Your task to perform on an android device: Open calendar and show me the first week of next month Image 0: 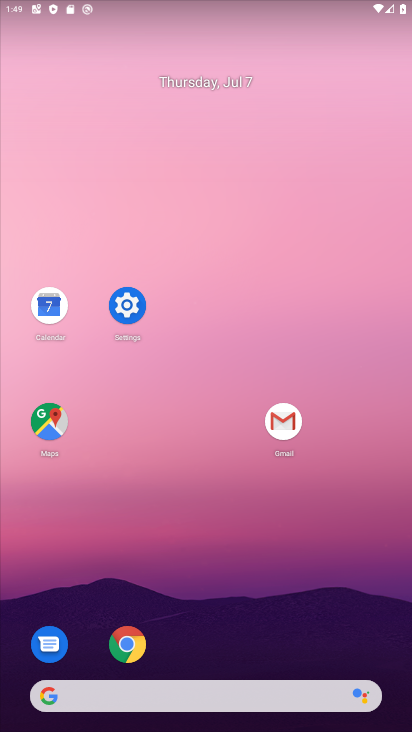
Step 0: click (57, 303)
Your task to perform on an android device: Open calendar and show me the first week of next month Image 1: 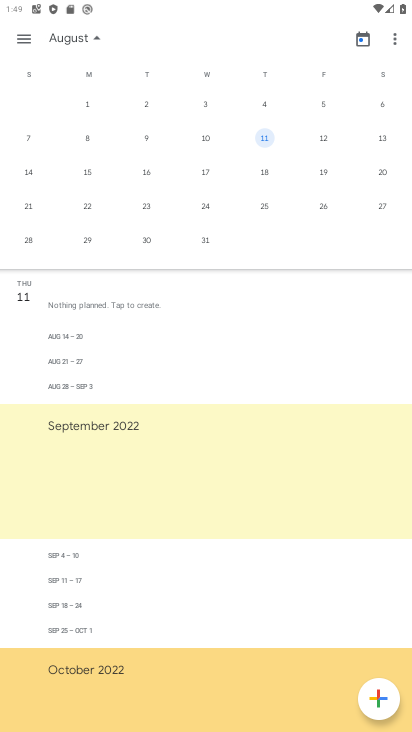
Step 1: click (206, 106)
Your task to perform on an android device: Open calendar and show me the first week of next month Image 2: 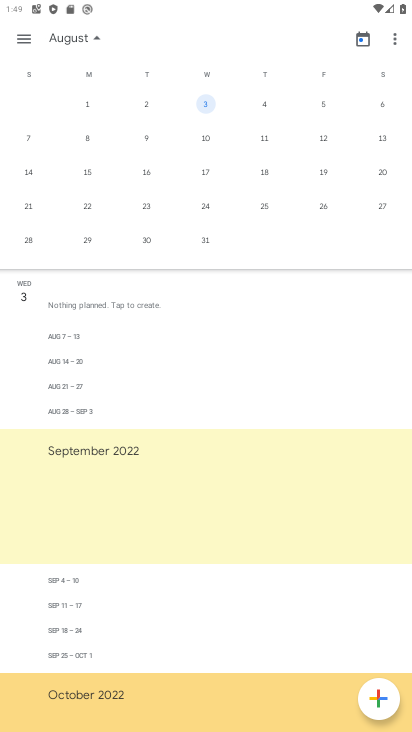
Step 2: task complete